Your task to perform on an android device: turn smart compose on in the gmail app Image 0: 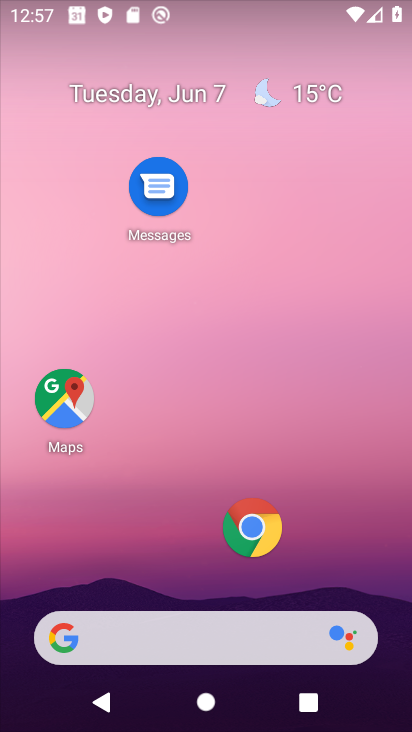
Step 0: drag from (187, 631) to (168, 333)
Your task to perform on an android device: turn smart compose on in the gmail app Image 1: 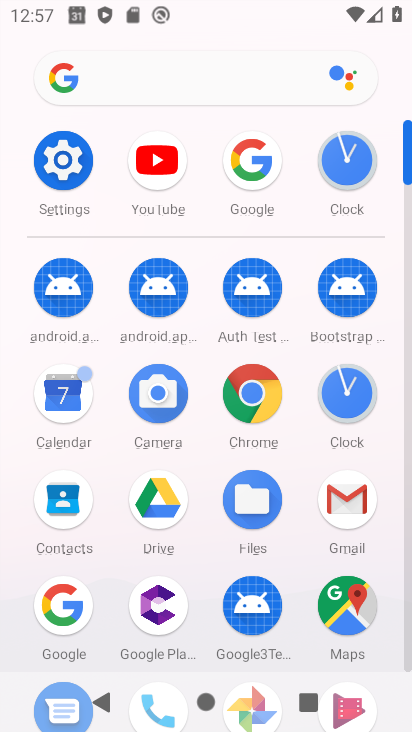
Step 1: click (336, 509)
Your task to perform on an android device: turn smart compose on in the gmail app Image 2: 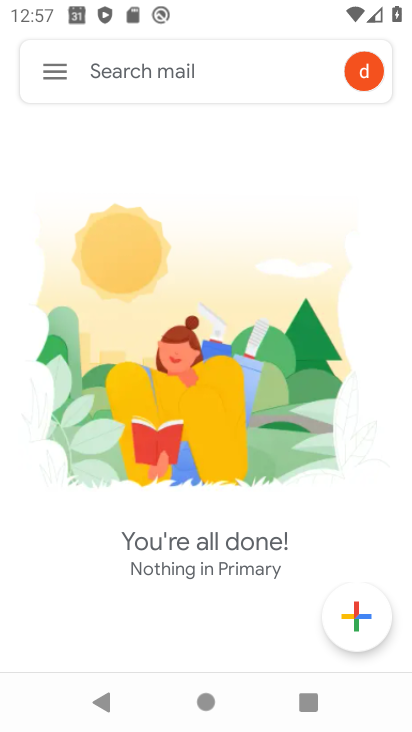
Step 2: click (66, 67)
Your task to perform on an android device: turn smart compose on in the gmail app Image 3: 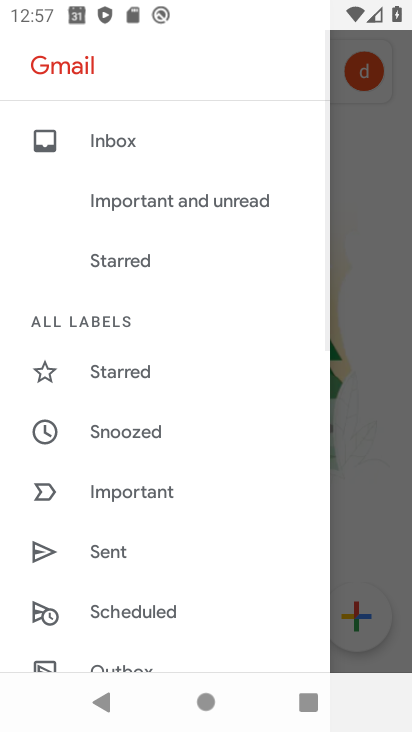
Step 3: drag from (141, 651) to (106, 300)
Your task to perform on an android device: turn smart compose on in the gmail app Image 4: 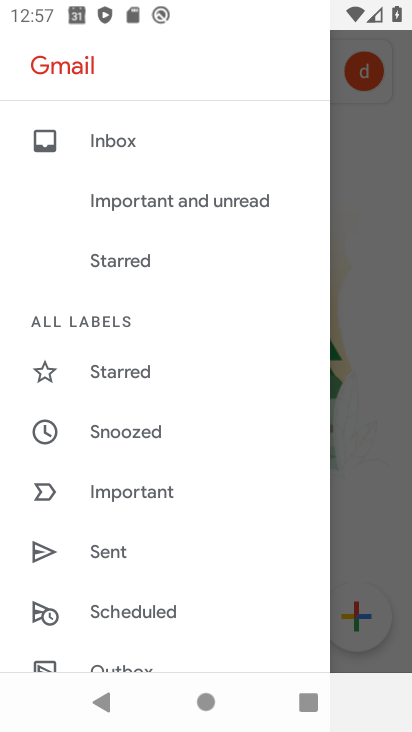
Step 4: drag from (184, 610) to (137, 336)
Your task to perform on an android device: turn smart compose on in the gmail app Image 5: 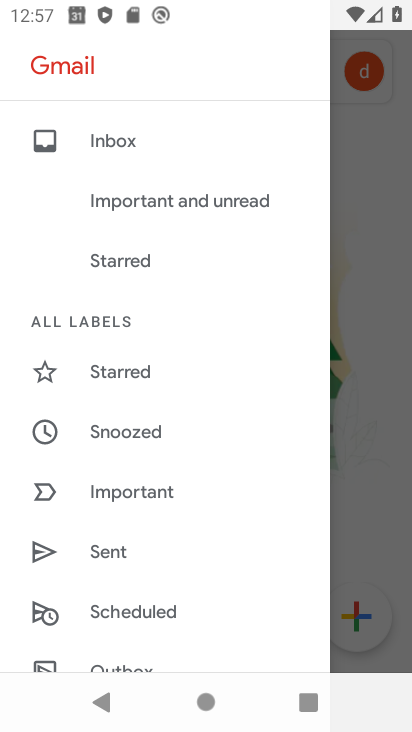
Step 5: drag from (124, 562) to (108, 316)
Your task to perform on an android device: turn smart compose on in the gmail app Image 6: 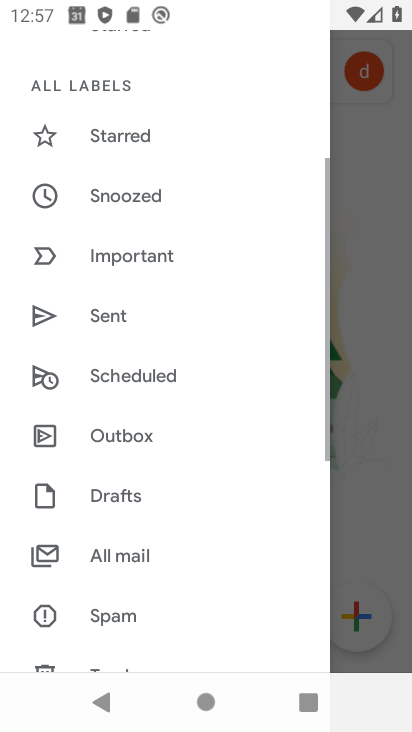
Step 6: drag from (122, 653) to (105, 349)
Your task to perform on an android device: turn smart compose on in the gmail app Image 7: 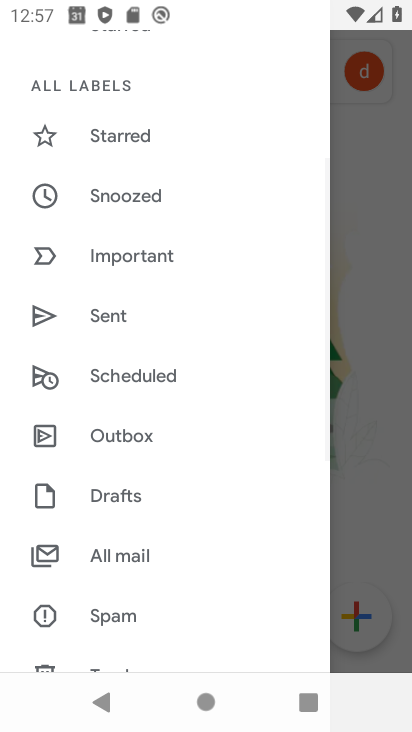
Step 7: drag from (116, 633) to (85, 435)
Your task to perform on an android device: turn smart compose on in the gmail app Image 8: 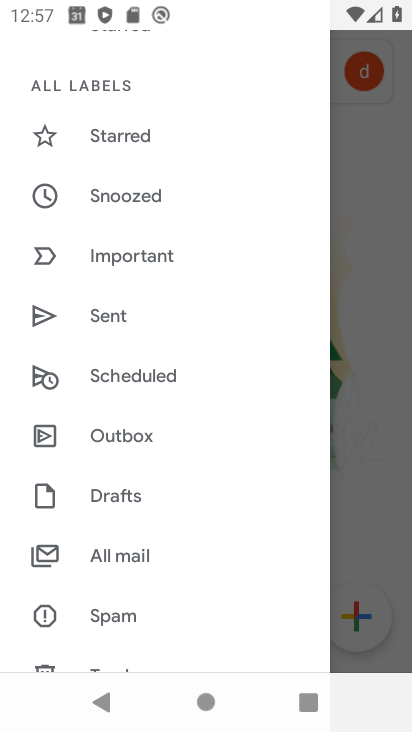
Step 8: drag from (110, 571) to (113, 278)
Your task to perform on an android device: turn smart compose on in the gmail app Image 9: 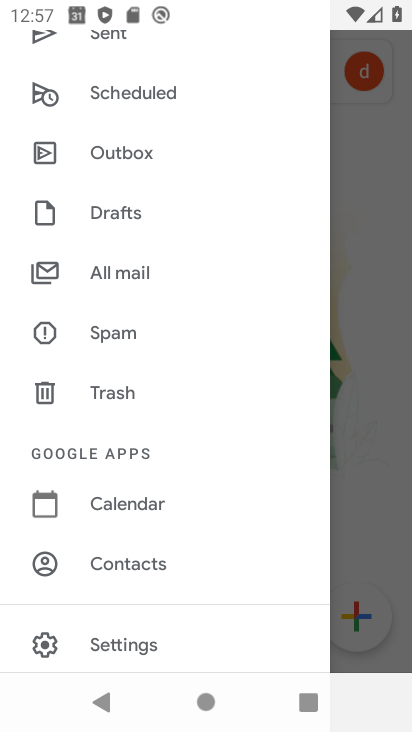
Step 9: click (150, 644)
Your task to perform on an android device: turn smart compose on in the gmail app Image 10: 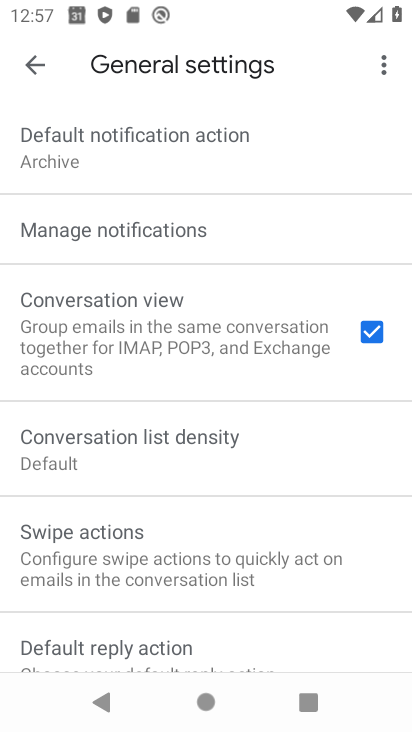
Step 10: drag from (184, 618) to (184, 381)
Your task to perform on an android device: turn smart compose on in the gmail app Image 11: 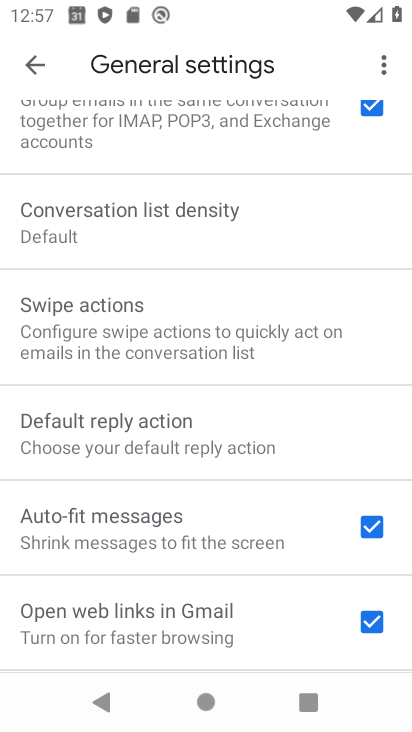
Step 11: drag from (122, 590) to (116, 364)
Your task to perform on an android device: turn smart compose on in the gmail app Image 12: 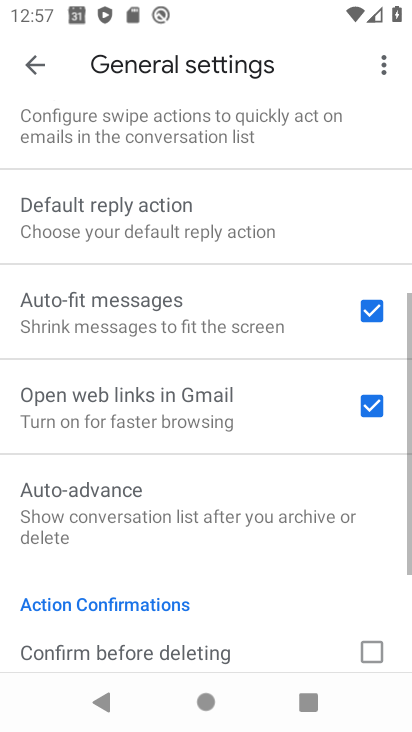
Step 12: click (28, 68)
Your task to perform on an android device: turn smart compose on in the gmail app Image 13: 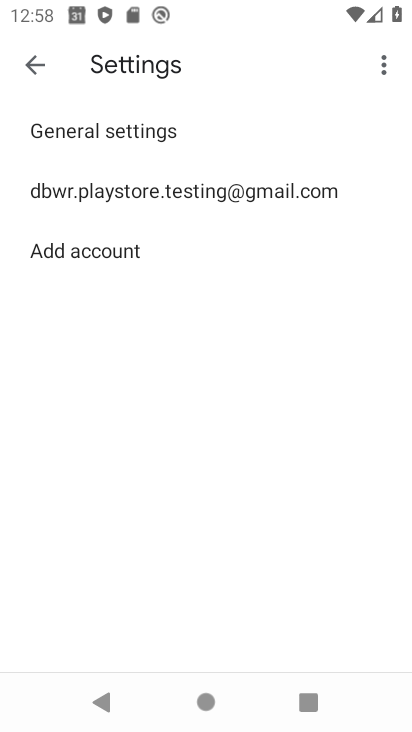
Step 13: click (56, 201)
Your task to perform on an android device: turn smart compose on in the gmail app Image 14: 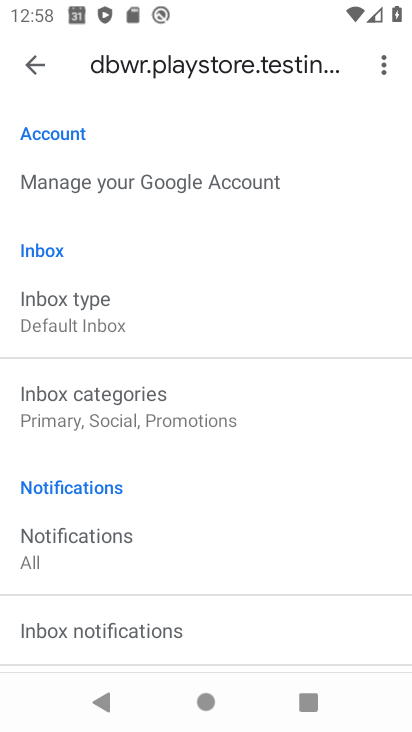
Step 14: task complete